Your task to perform on an android device: Go to Yahoo.com Image 0: 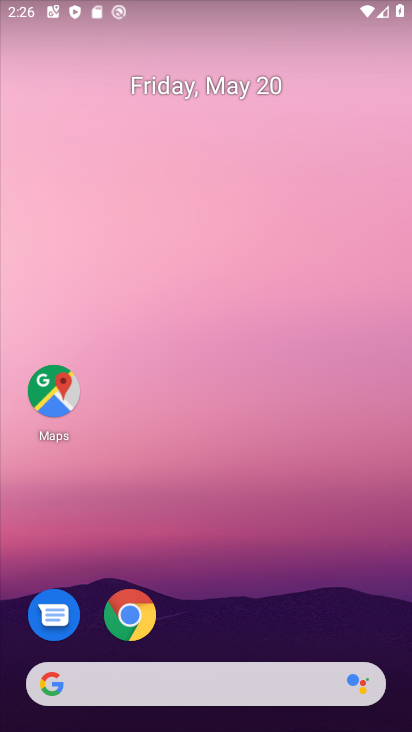
Step 0: click (110, 602)
Your task to perform on an android device: Go to Yahoo.com Image 1: 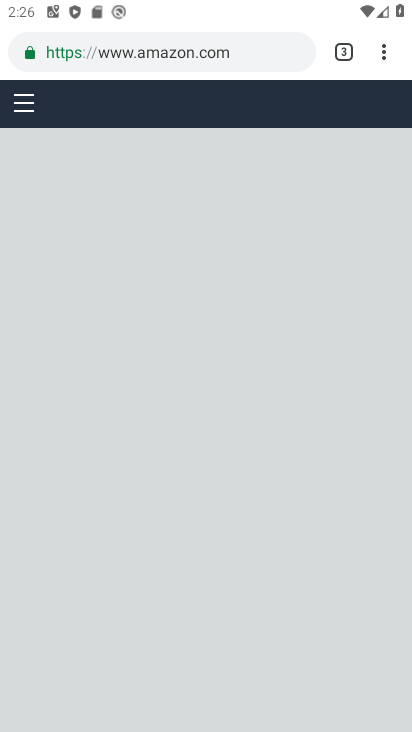
Step 1: click (377, 46)
Your task to perform on an android device: Go to Yahoo.com Image 2: 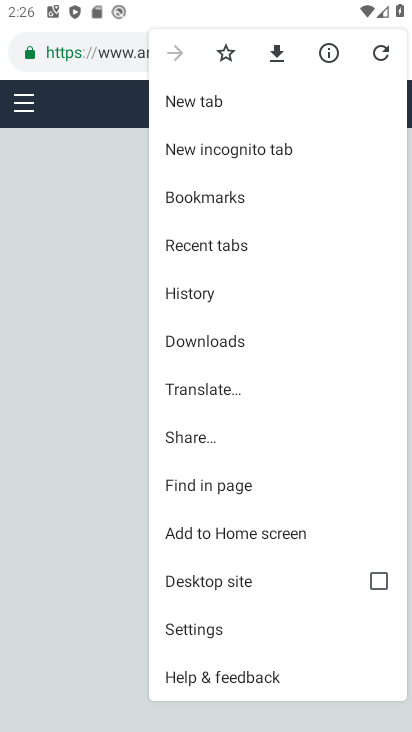
Step 2: click (187, 91)
Your task to perform on an android device: Go to Yahoo.com Image 3: 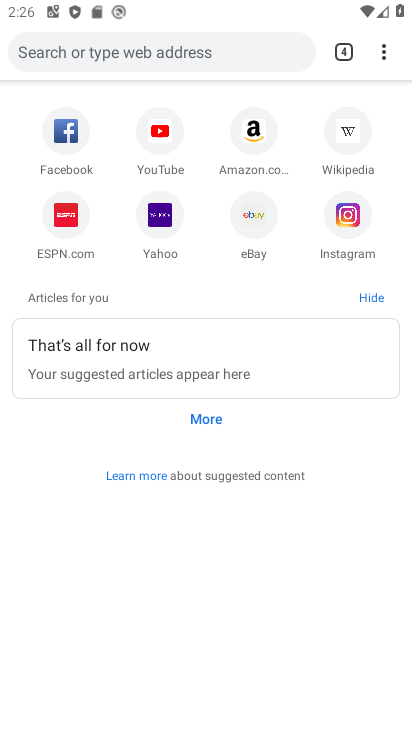
Step 3: click (154, 209)
Your task to perform on an android device: Go to Yahoo.com Image 4: 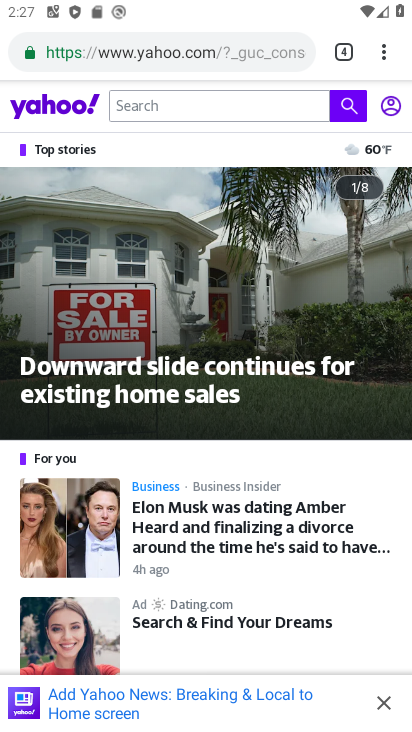
Step 4: task complete